Your task to perform on an android device: turn off airplane mode Image 0: 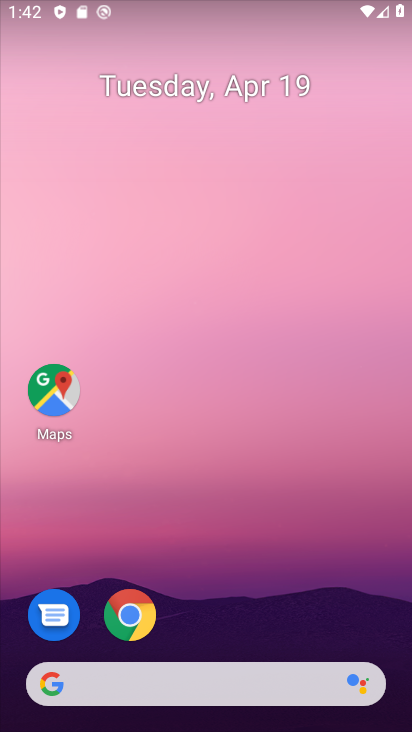
Step 0: drag from (218, 608) to (373, 83)
Your task to perform on an android device: turn off airplane mode Image 1: 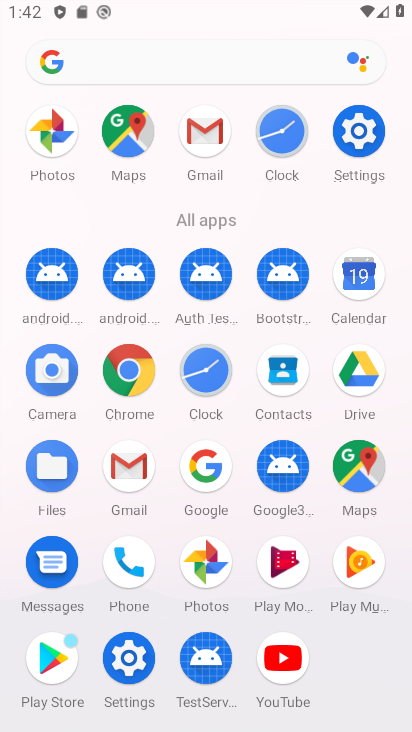
Step 1: click (127, 657)
Your task to perform on an android device: turn off airplane mode Image 2: 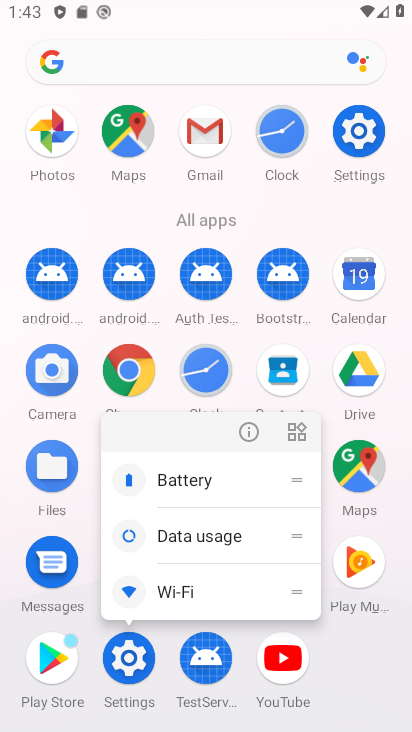
Step 2: click (251, 441)
Your task to perform on an android device: turn off airplane mode Image 3: 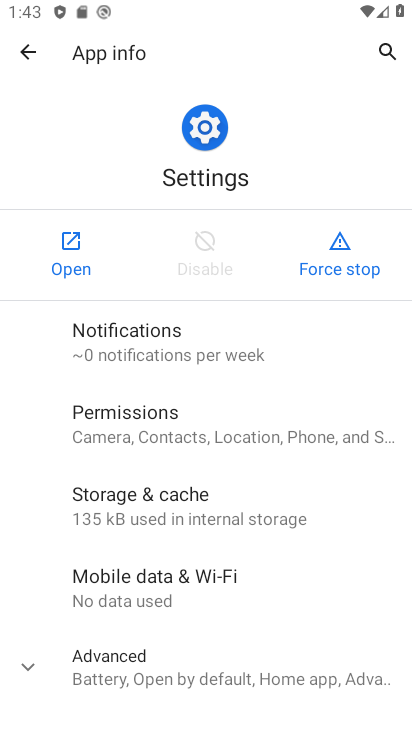
Step 3: click (85, 267)
Your task to perform on an android device: turn off airplane mode Image 4: 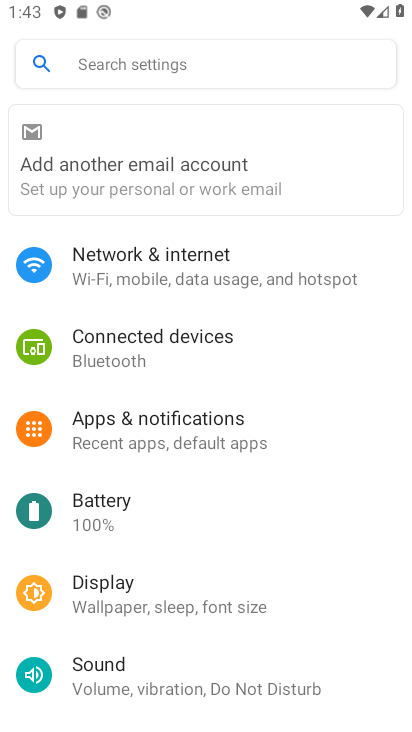
Step 4: drag from (158, 588) to (352, 119)
Your task to perform on an android device: turn off airplane mode Image 5: 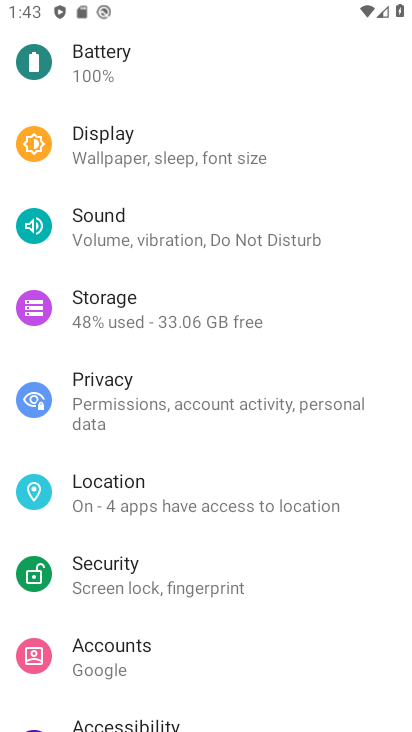
Step 5: drag from (276, 650) to (334, 265)
Your task to perform on an android device: turn off airplane mode Image 6: 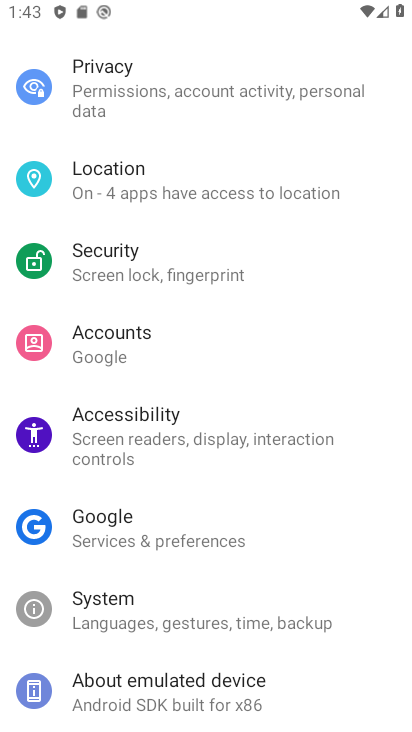
Step 6: drag from (266, 192) to (264, 686)
Your task to perform on an android device: turn off airplane mode Image 7: 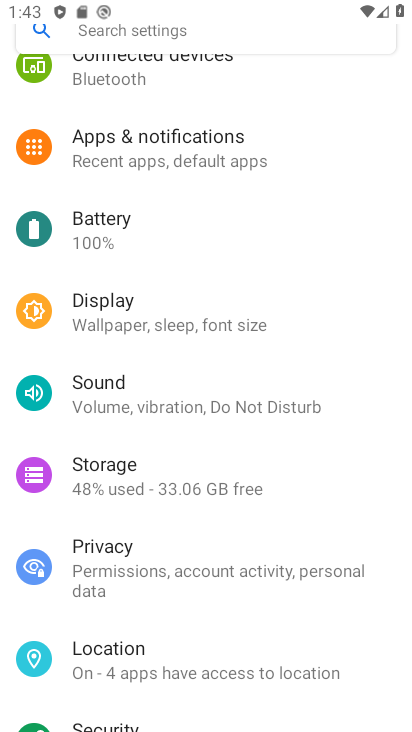
Step 7: drag from (152, 176) to (193, 653)
Your task to perform on an android device: turn off airplane mode Image 8: 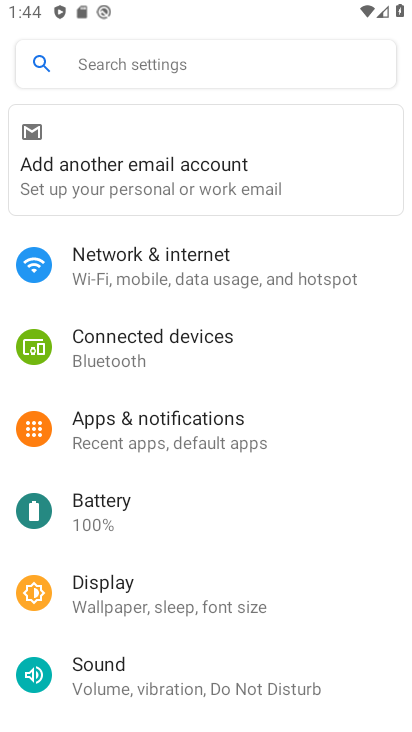
Step 8: click (156, 275)
Your task to perform on an android device: turn off airplane mode Image 9: 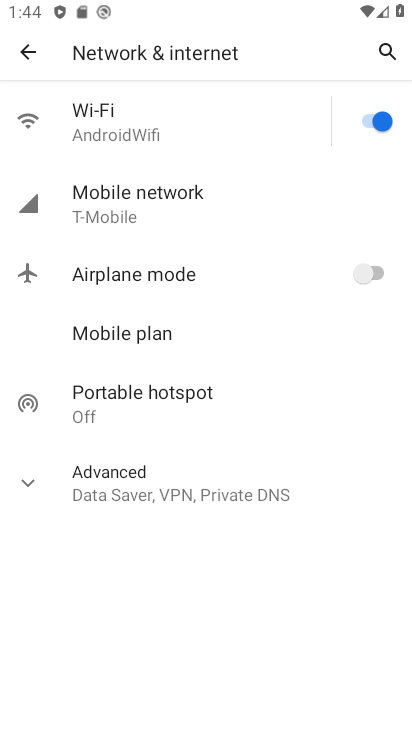
Step 9: task complete